Your task to perform on an android device: Open Youtube and go to the subscriptions tab Image 0: 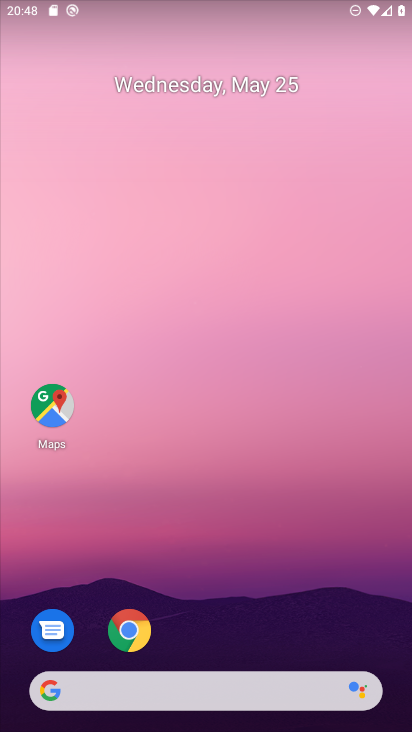
Step 0: drag from (259, 612) to (266, 150)
Your task to perform on an android device: Open Youtube and go to the subscriptions tab Image 1: 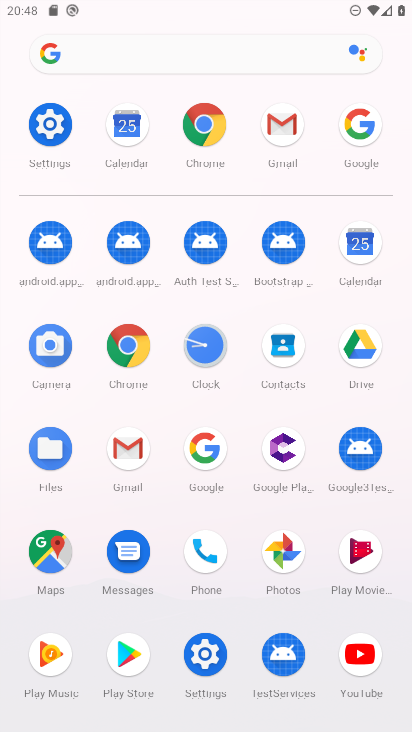
Step 1: drag from (228, 603) to (311, 301)
Your task to perform on an android device: Open Youtube and go to the subscriptions tab Image 2: 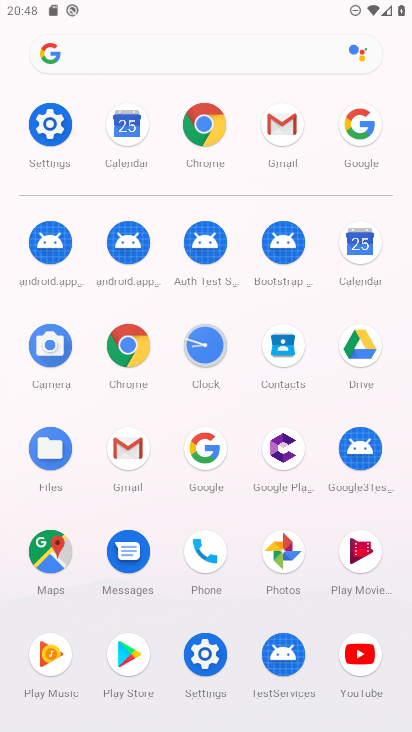
Step 2: click (361, 644)
Your task to perform on an android device: Open Youtube and go to the subscriptions tab Image 3: 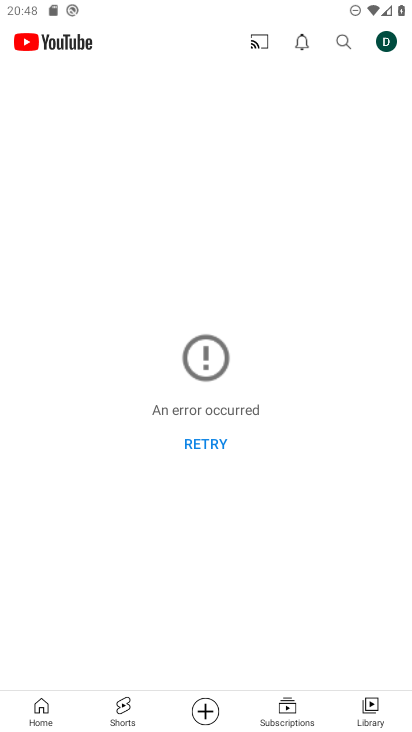
Step 3: click (288, 708)
Your task to perform on an android device: Open Youtube and go to the subscriptions tab Image 4: 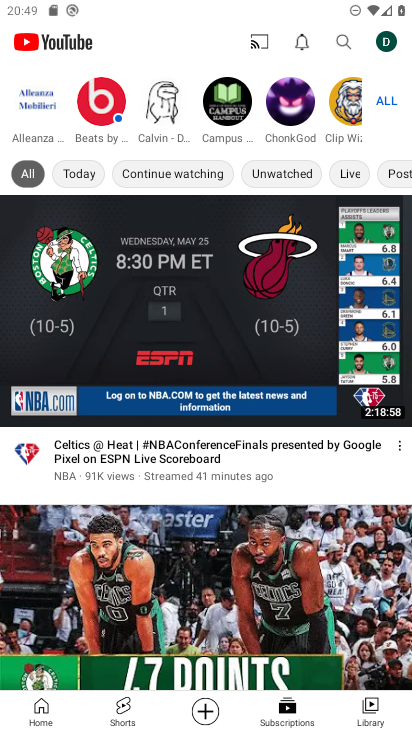
Step 4: task complete